Your task to perform on an android device: change your default location settings in chrome Image 0: 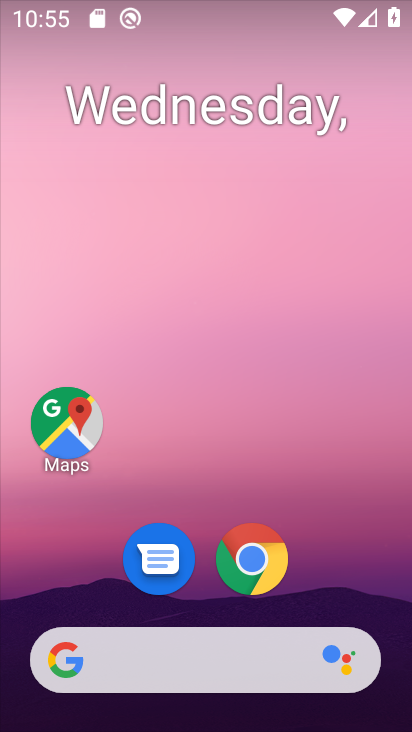
Step 0: drag from (312, 677) to (294, 144)
Your task to perform on an android device: change your default location settings in chrome Image 1: 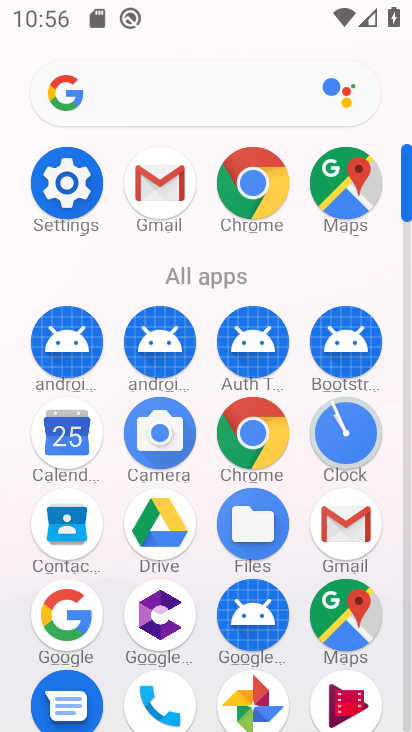
Step 1: click (253, 159)
Your task to perform on an android device: change your default location settings in chrome Image 2: 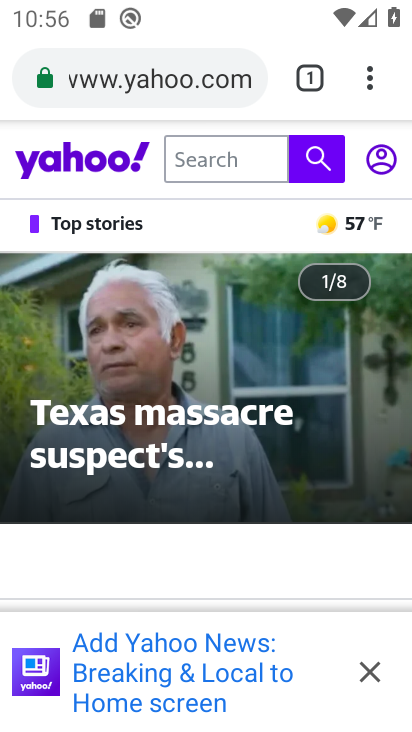
Step 2: click (367, 85)
Your task to perform on an android device: change your default location settings in chrome Image 3: 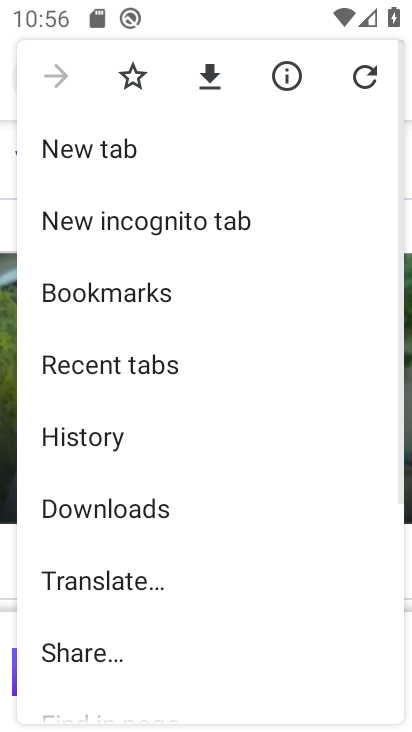
Step 3: drag from (156, 665) to (158, 360)
Your task to perform on an android device: change your default location settings in chrome Image 4: 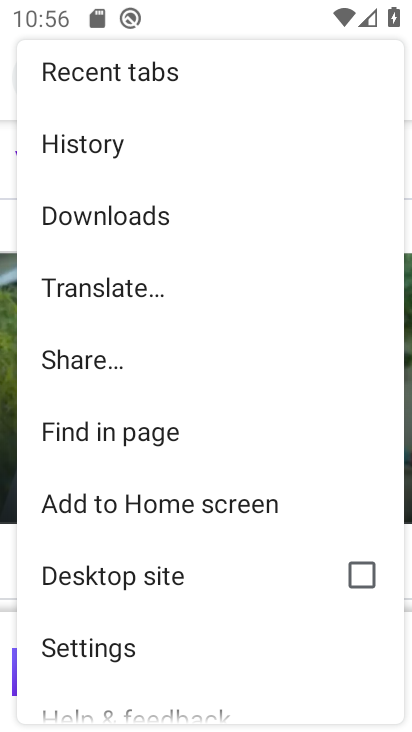
Step 4: click (149, 657)
Your task to perform on an android device: change your default location settings in chrome Image 5: 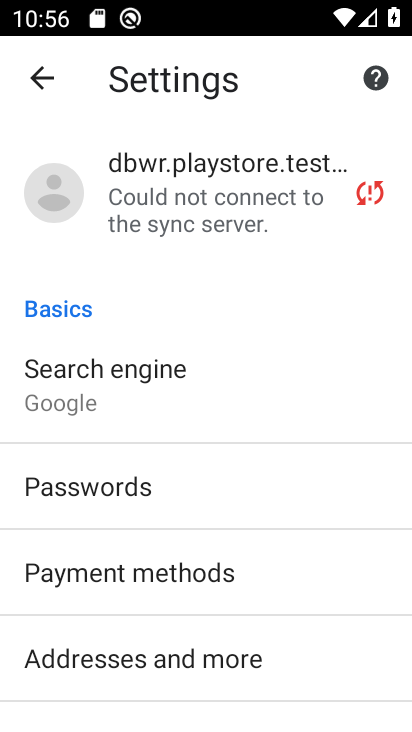
Step 5: drag from (140, 665) to (103, 357)
Your task to perform on an android device: change your default location settings in chrome Image 6: 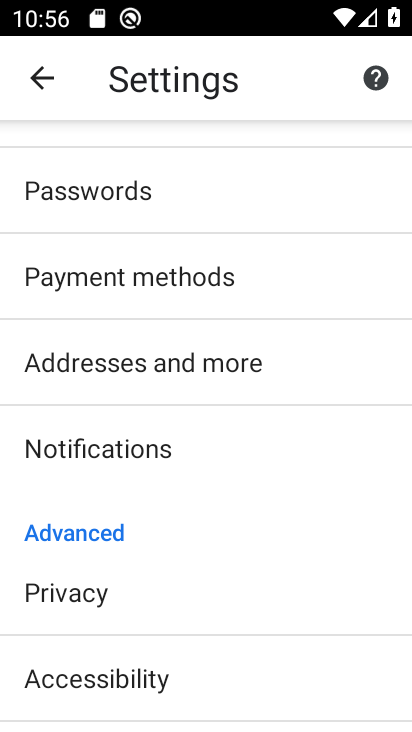
Step 6: drag from (115, 629) to (132, 426)
Your task to perform on an android device: change your default location settings in chrome Image 7: 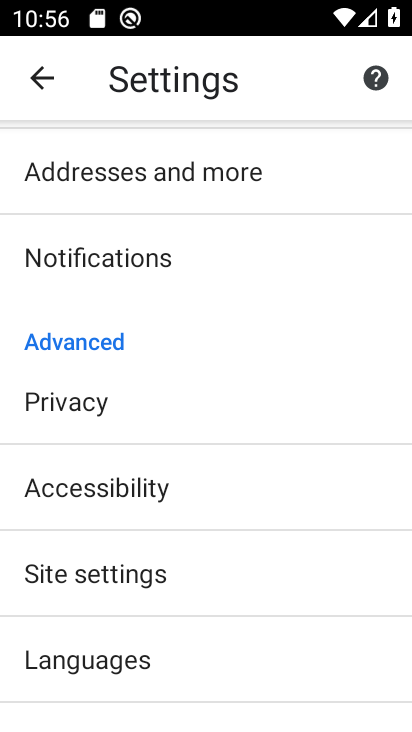
Step 7: click (114, 582)
Your task to perform on an android device: change your default location settings in chrome Image 8: 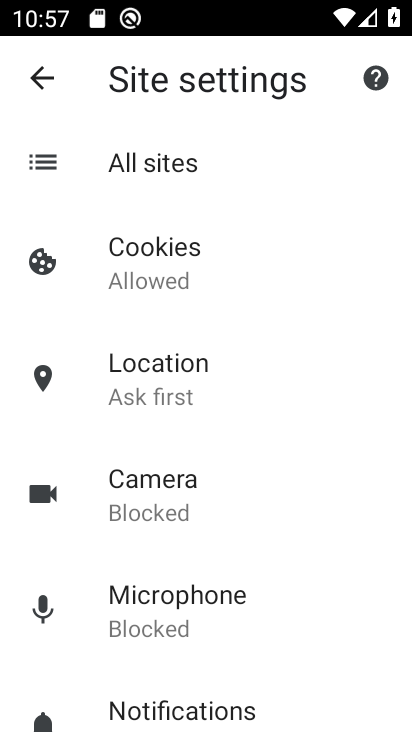
Step 8: click (164, 391)
Your task to perform on an android device: change your default location settings in chrome Image 9: 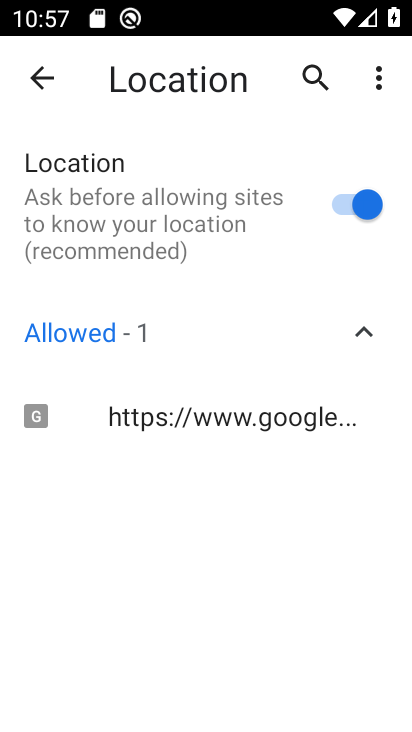
Step 9: task complete